Your task to perform on an android device: Check the news Image 0: 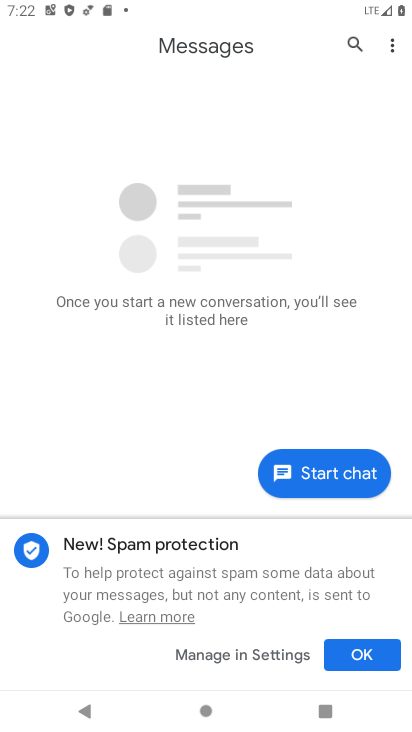
Step 0: press home button
Your task to perform on an android device: Check the news Image 1: 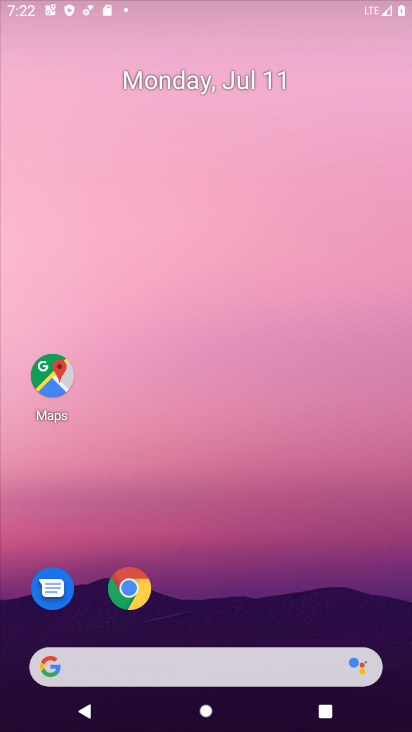
Step 1: drag from (369, 591) to (239, 44)
Your task to perform on an android device: Check the news Image 2: 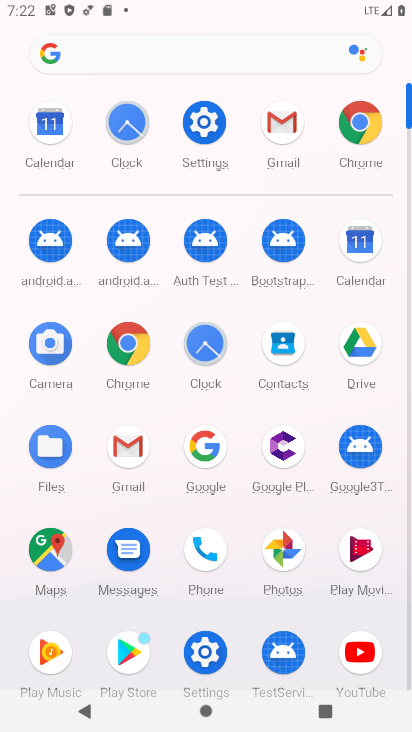
Step 2: click (193, 453)
Your task to perform on an android device: Check the news Image 3: 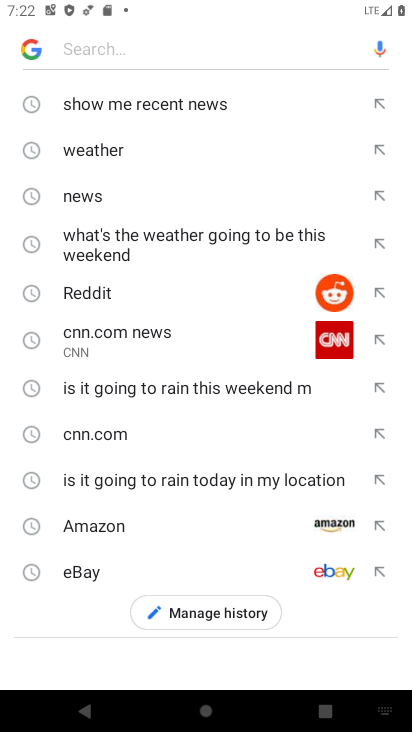
Step 3: click (102, 191)
Your task to perform on an android device: Check the news Image 4: 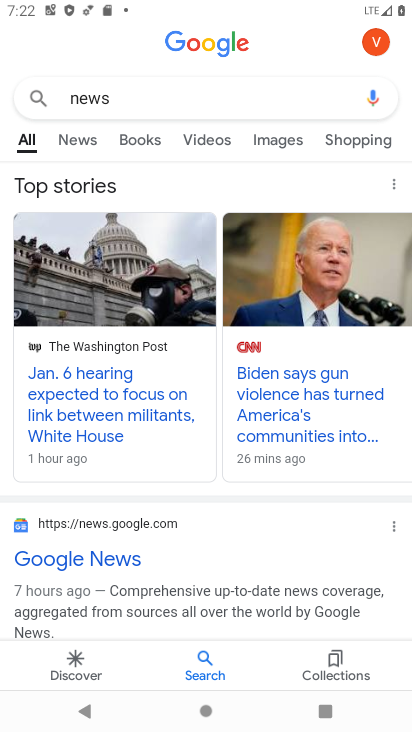
Step 4: task complete